Your task to perform on an android device: Search for seafood restaurants on Google Maps Image 0: 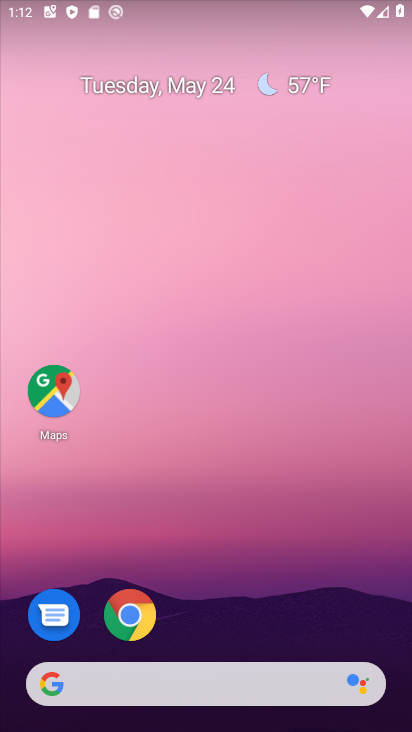
Step 0: click (41, 375)
Your task to perform on an android device: Search for seafood restaurants on Google Maps Image 1: 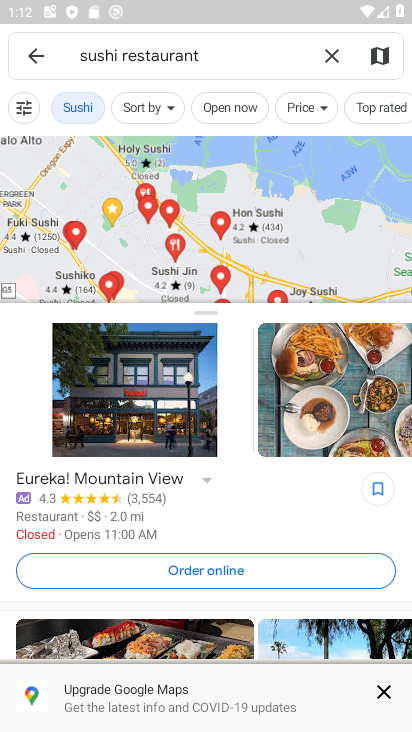
Step 1: click (325, 57)
Your task to perform on an android device: Search for seafood restaurants on Google Maps Image 2: 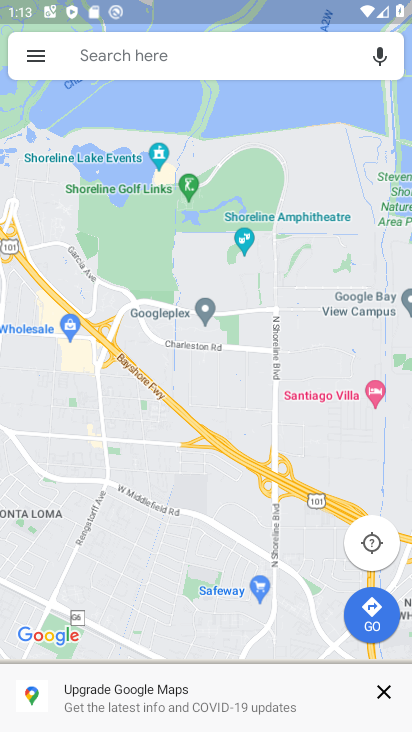
Step 2: click (214, 50)
Your task to perform on an android device: Search for seafood restaurants on Google Maps Image 3: 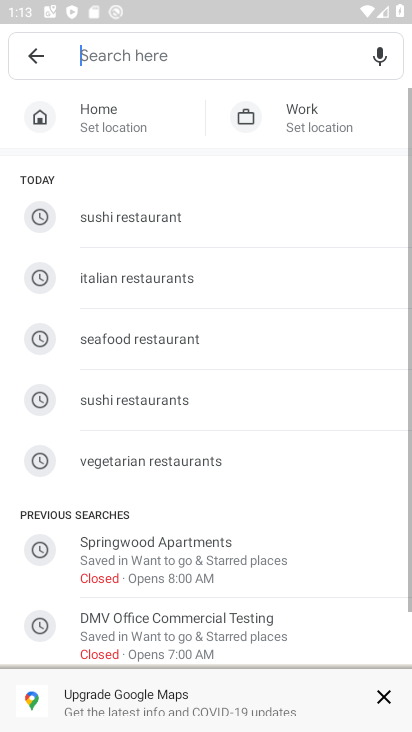
Step 3: click (214, 50)
Your task to perform on an android device: Search for seafood restaurants on Google Maps Image 4: 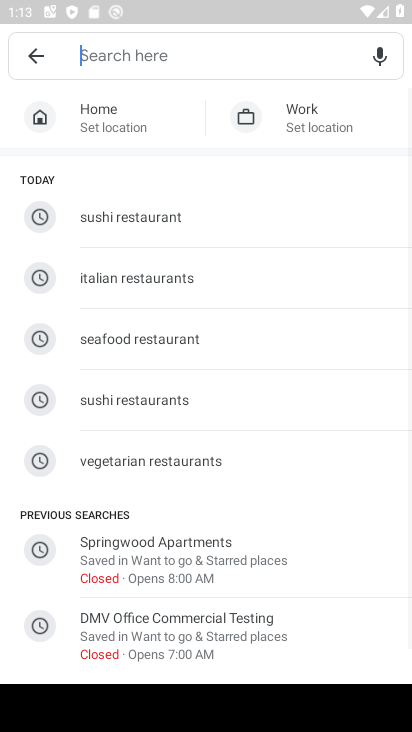
Step 4: click (144, 335)
Your task to perform on an android device: Search for seafood restaurants on Google Maps Image 5: 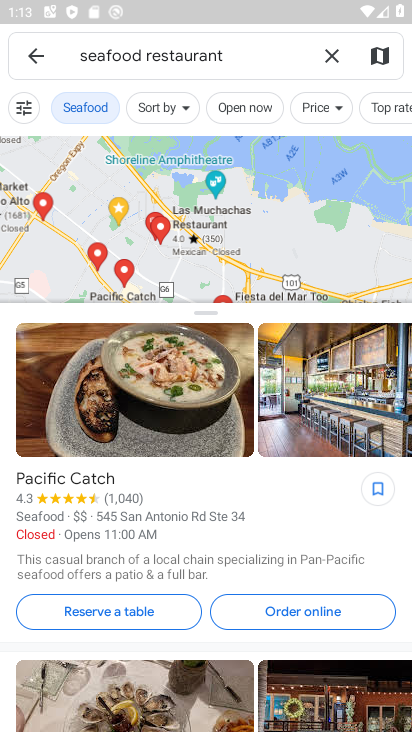
Step 5: click (290, 255)
Your task to perform on an android device: Search for seafood restaurants on Google Maps Image 6: 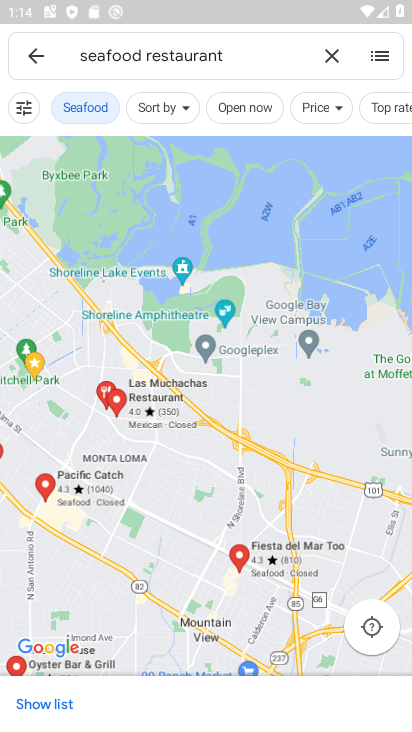
Step 6: task complete